Your task to perform on an android device: allow cookies in the chrome app Image 0: 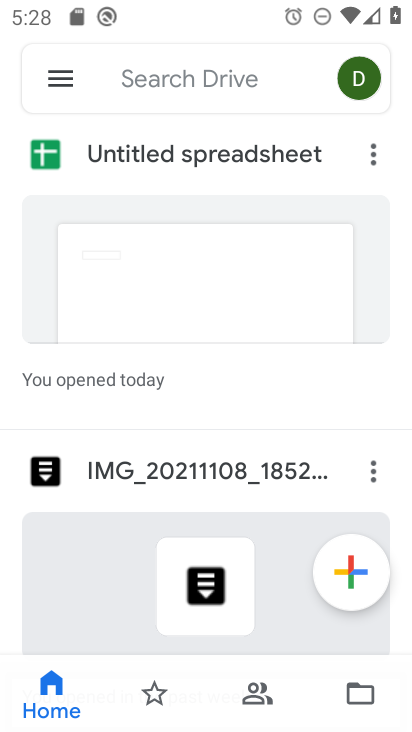
Step 0: press home button
Your task to perform on an android device: allow cookies in the chrome app Image 1: 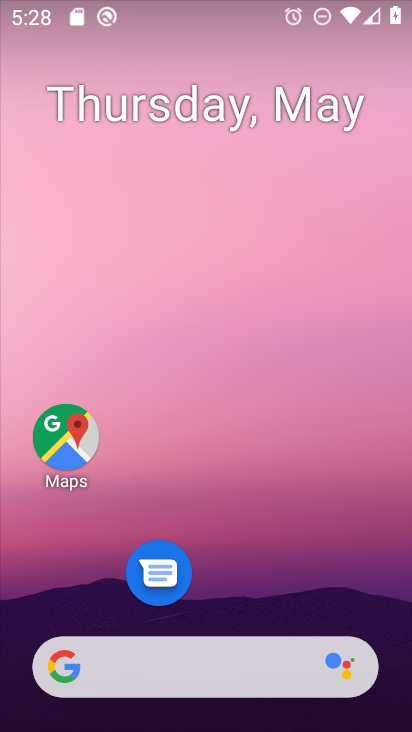
Step 1: drag from (235, 569) to (239, 44)
Your task to perform on an android device: allow cookies in the chrome app Image 2: 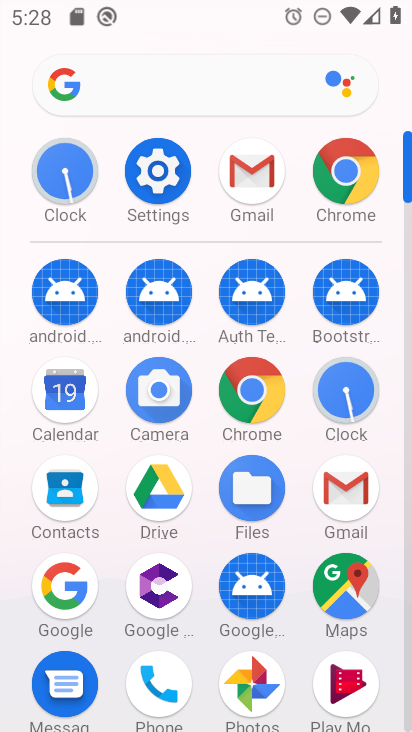
Step 2: click (344, 195)
Your task to perform on an android device: allow cookies in the chrome app Image 3: 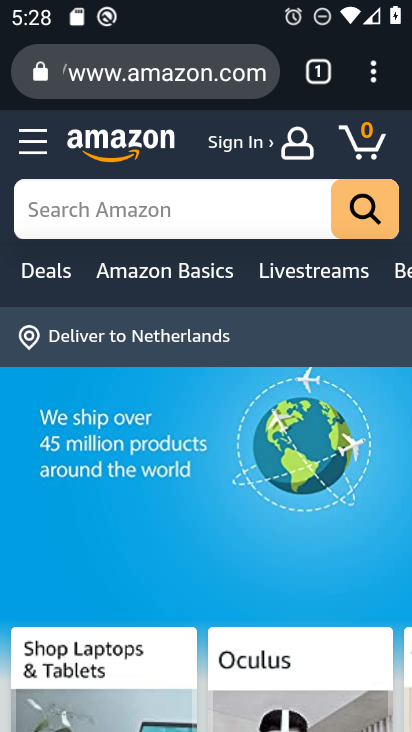
Step 3: click (373, 69)
Your task to perform on an android device: allow cookies in the chrome app Image 4: 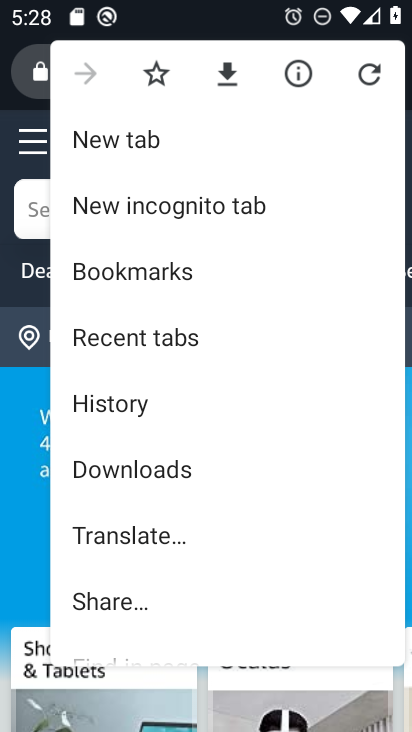
Step 4: drag from (207, 315) to (224, 275)
Your task to perform on an android device: allow cookies in the chrome app Image 5: 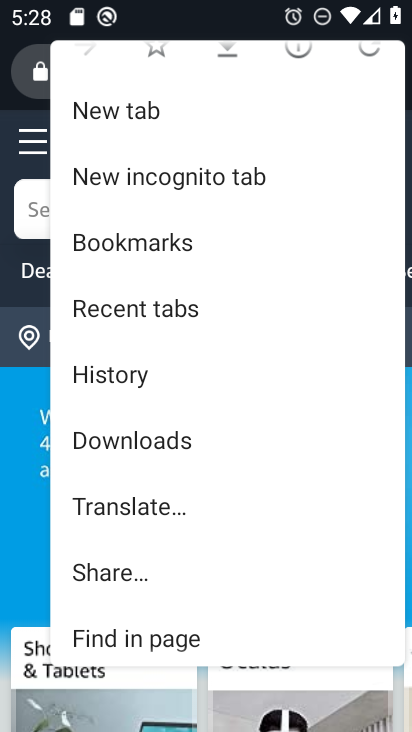
Step 5: drag from (118, 608) to (109, 300)
Your task to perform on an android device: allow cookies in the chrome app Image 6: 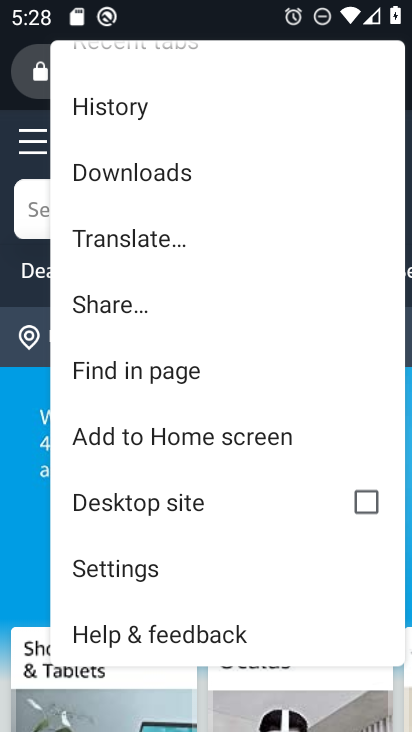
Step 6: click (140, 580)
Your task to perform on an android device: allow cookies in the chrome app Image 7: 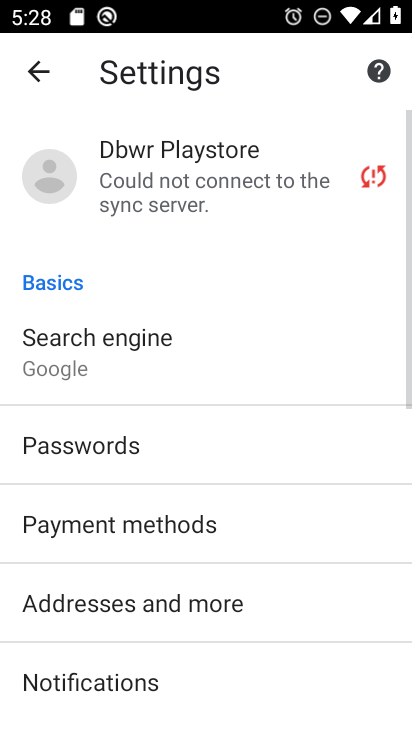
Step 7: drag from (138, 628) to (133, 283)
Your task to perform on an android device: allow cookies in the chrome app Image 8: 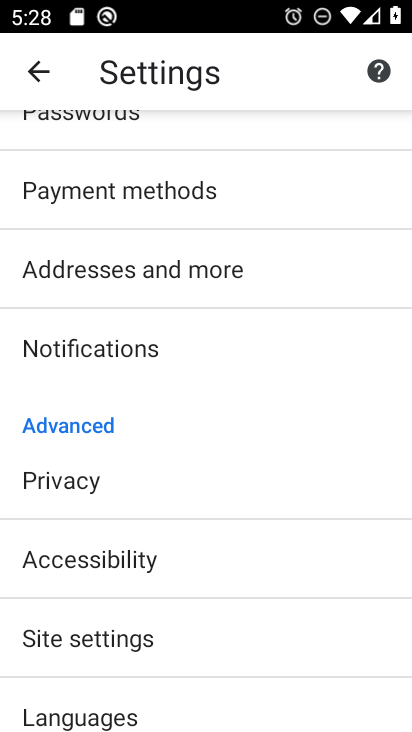
Step 8: click (111, 637)
Your task to perform on an android device: allow cookies in the chrome app Image 9: 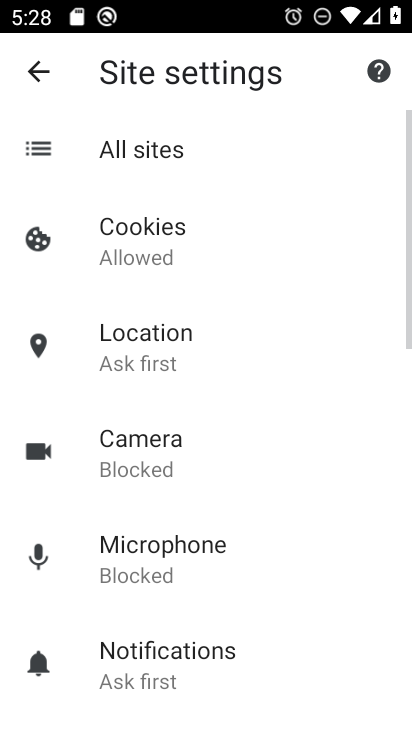
Step 9: drag from (140, 644) to (178, 325)
Your task to perform on an android device: allow cookies in the chrome app Image 10: 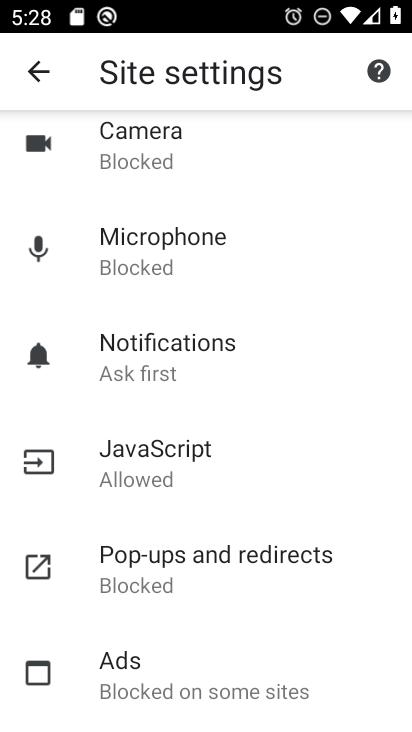
Step 10: drag from (236, 232) to (217, 523)
Your task to perform on an android device: allow cookies in the chrome app Image 11: 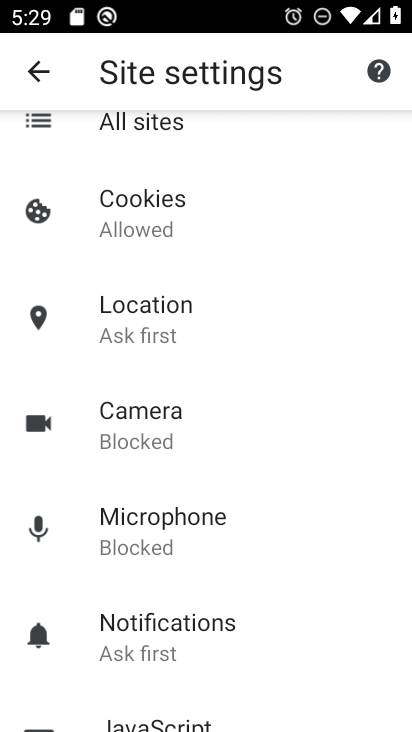
Step 11: click (141, 219)
Your task to perform on an android device: allow cookies in the chrome app Image 12: 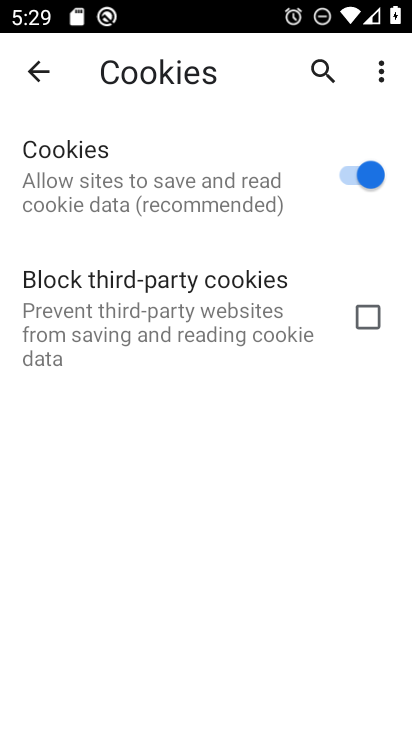
Step 12: task complete